Your task to perform on an android device: Open Yahoo.com Image 0: 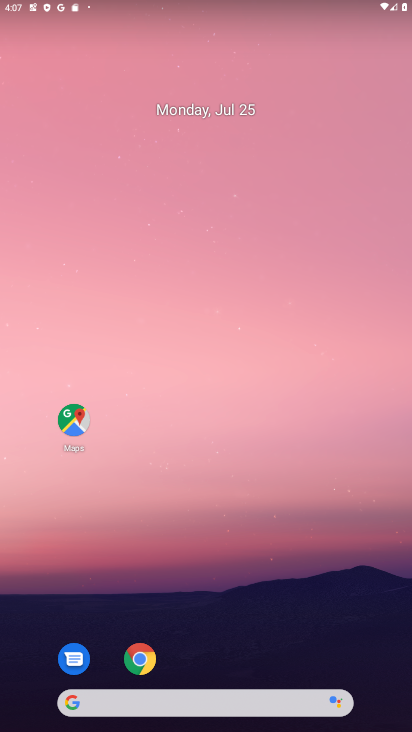
Step 0: click (142, 661)
Your task to perform on an android device: Open Yahoo.com Image 1: 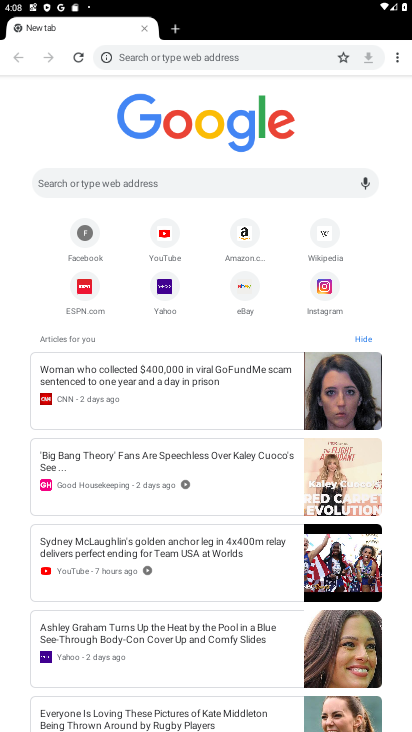
Step 1: click (109, 179)
Your task to perform on an android device: Open Yahoo.com Image 2: 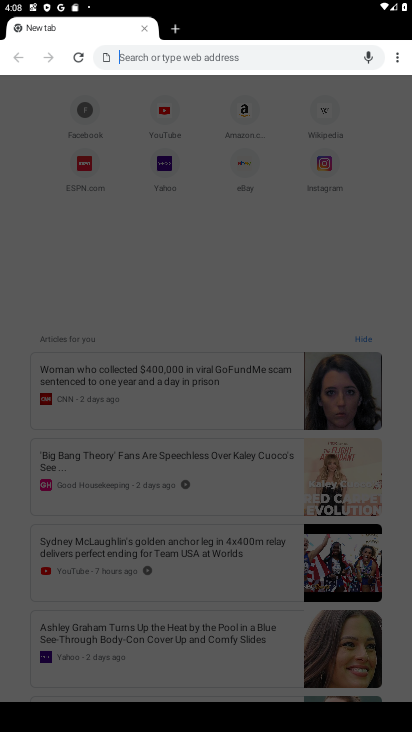
Step 2: type "yahoo.com"
Your task to perform on an android device: Open Yahoo.com Image 3: 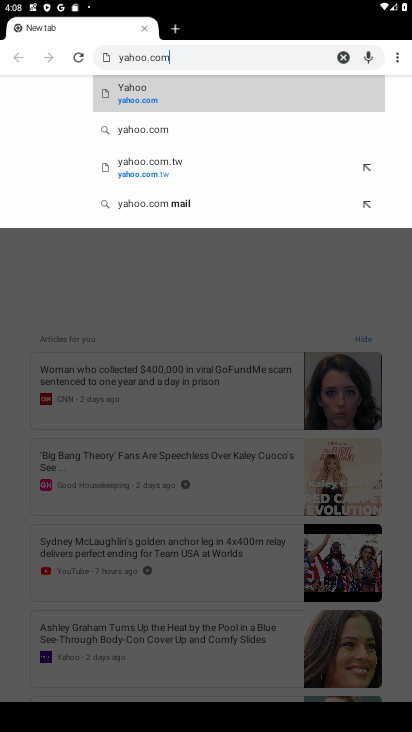
Step 3: click (148, 81)
Your task to perform on an android device: Open Yahoo.com Image 4: 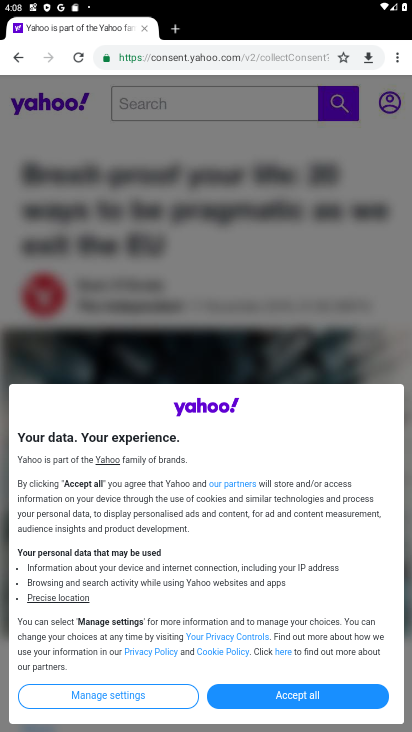
Step 4: click (295, 695)
Your task to perform on an android device: Open Yahoo.com Image 5: 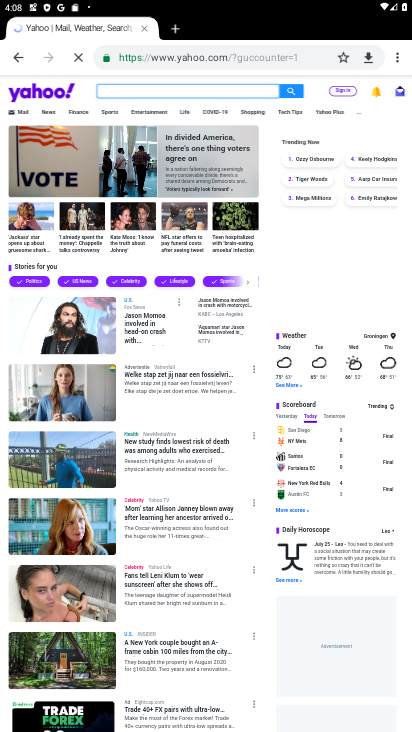
Step 5: task complete